Your task to perform on an android device: Clear the shopping cart on ebay.com. Search for usb-a to usb-b on ebay.com, select the first entry, add it to the cart, then select checkout. Image 0: 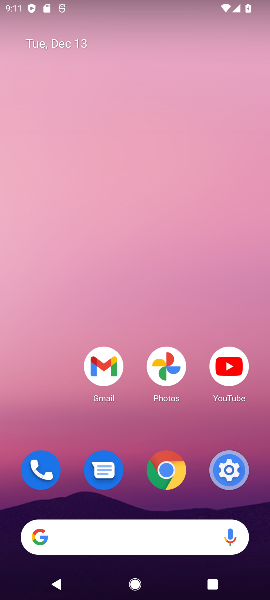
Step 0: press home button
Your task to perform on an android device: Clear the shopping cart on ebay.com. Search for usb-a to usb-b on ebay.com, select the first entry, add it to the cart, then select checkout. Image 1: 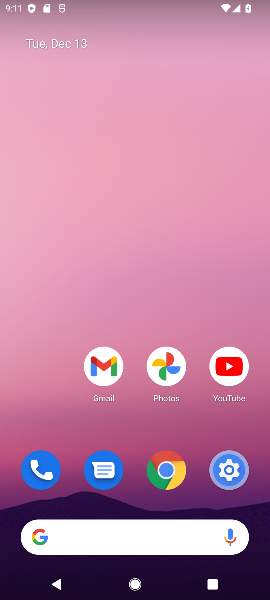
Step 1: click (65, 534)
Your task to perform on an android device: Clear the shopping cart on ebay.com. Search for usb-a to usb-b on ebay.com, select the first entry, add it to the cart, then select checkout. Image 2: 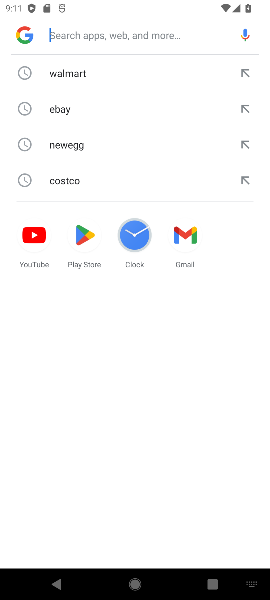
Step 2: type "ebay.com"
Your task to perform on an android device: Clear the shopping cart on ebay.com. Search for usb-a to usb-b on ebay.com, select the first entry, add it to the cart, then select checkout. Image 3: 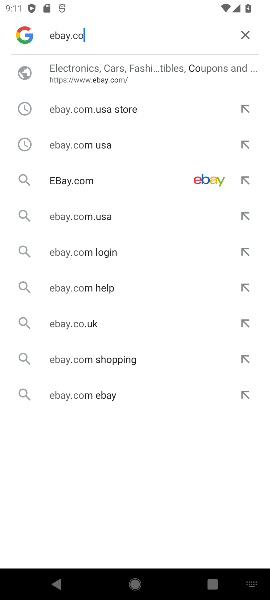
Step 3: press enter
Your task to perform on an android device: Clear the shopping cart on ebay.com. Search for usb-a to usb-b on ebay.com, select the first entry, add it to the cart, then select checkout. Image 4: 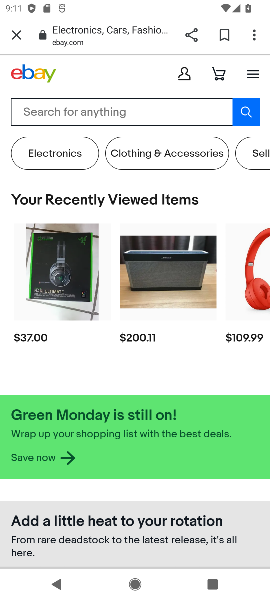
Step 4: click (218, 67)
Your task to perform on an android device: Clear the shopping cart on ebay.com. Search for usb-a to usb-b on ebay.com, select the first entry, add it to the cart, then select checkout. Image 5: 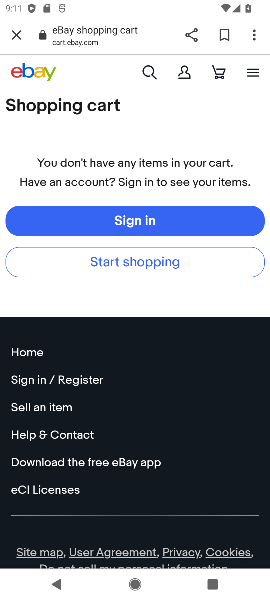
Step 5: click (144, 69)
Your task to perform on an android device: Clear the shopping cart on ebay.com. Search for usb-a to usb-b on ebay.com, select the first entry, add it to the cart, then select checkout. Image 6: 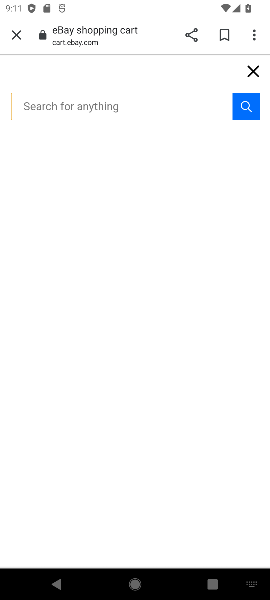
Step 6: type "usb-b"
Your task to perform on an android device: Clear the shopping cart on ebay.com. Search for usb-a to usb-b on ebay.com, select the first entry, add it to the cart, then select checkout. Image 7: 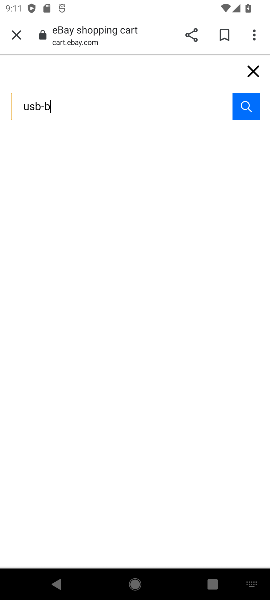
Step 7: press enter
Your task to perform on an android device: Clear the shopping cart on ebay.com. Search for usb-a to usb-b on ebay.com, select the first entry, add it to the cart, then select checkout. Image 8: 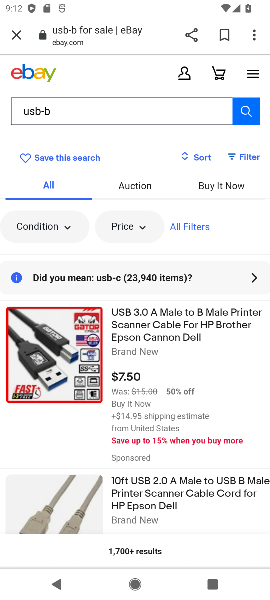
Step 8: drag from (214, 497) to (202, 371)
Your task to perform on an android device: Clear the shopping cart on ebay.com. Search for usb-a to usb-b on ebay.com, select the first entry, add it to the cart, then select checkout. Image 9: 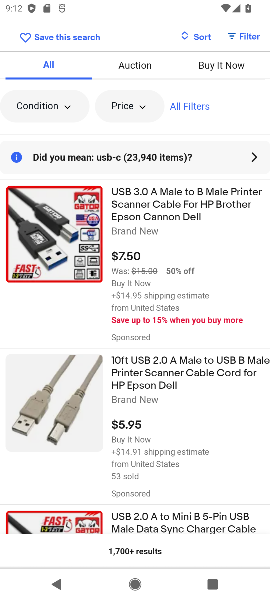
Step 9: drag from (196, 480) to (201, 264)
Your task to perform on an android device: Clear the shopping cart on ebay.com. Search for usb-a to usb-b on ebay.com, select the first entry, add it to the cart, then select checkout. Image 10: 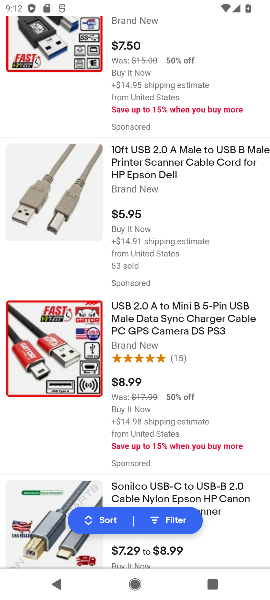
Step 10: drag from (192, 457) to (195, 255)
Your task to perform on an android device: Clear the shopping cart on ebay.com. Search for usb-a to usb-b on ebay.com, select the first entry, add it to the cart, then select checkout. Image 11: 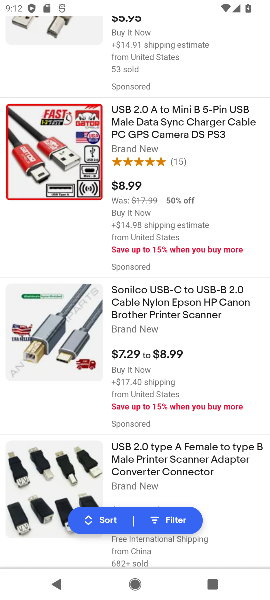
Step 11: drag from (195, 429) to (199, 264)
Your task to perform on an android device: Clear the shopping cart on ebay.com. Search for usb-a to usb-b on ebay.com, select the first entry, add it to the cart, then select checkout. Image 12: 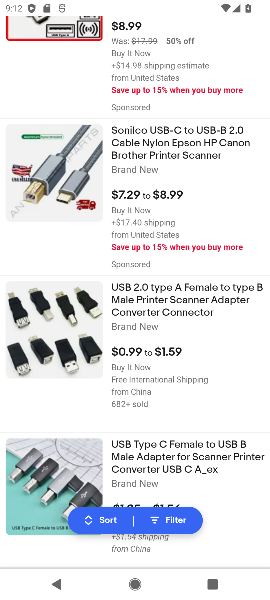
Step 12: drag from (190, 427) to (201, 136)
Your task to perform on an android device: Clear the shopping cart on ebay.com. Search for usb-a to usb-b on ebay.com, select the first entry, add it to the cart, then select checkout. Image 13: 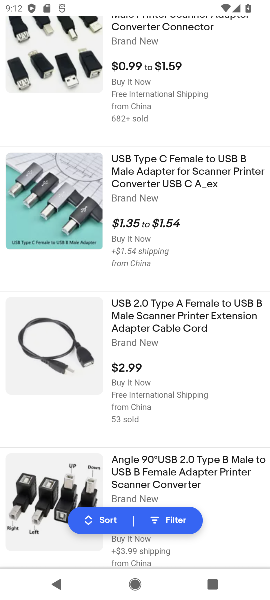
Step 13: drag from (188, 454) to (199, 288)
Your task to perform on an android device: Clear the shopping cart on ebay.com. Search for usb-a to usb-b on ebay.com, select the first entry, add it to the cart, then select checkout. Image 14: 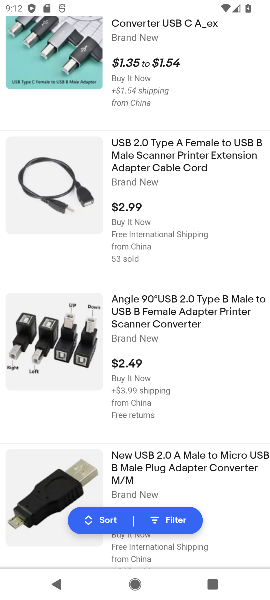
Step 14: click (170, 148)
Your task to perform on an android device: Clear the shopping cart on ebay.com. Search for usb-a to usb-b on ebay.com, select the first entry, add it to the cart, then select checkout. Image 15: 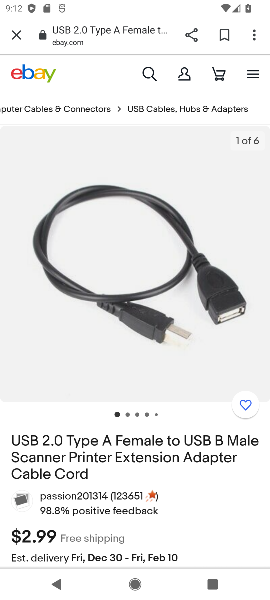
Step 15: task complete